Your task to perform on an android device: delete the emails in spam in the gmail app Image 0: 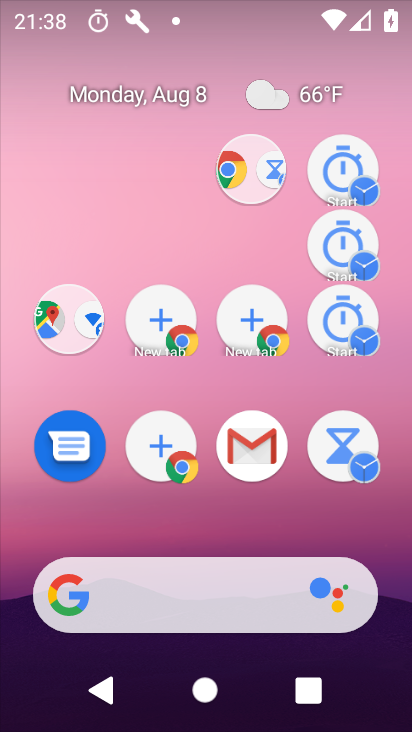
Step 0: drag from (258, 337) to (253, 277)
Your task to perform on an android device: delete the emails in spam in the gmail app Image 1: 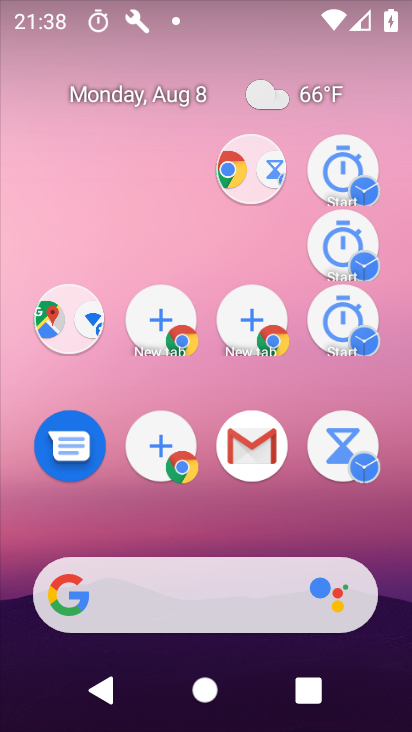
Step 1: drag from (249, 510) to (229, 306)
Your task to perform on an android device: delete the emails in spam in the gmail app Image 2: 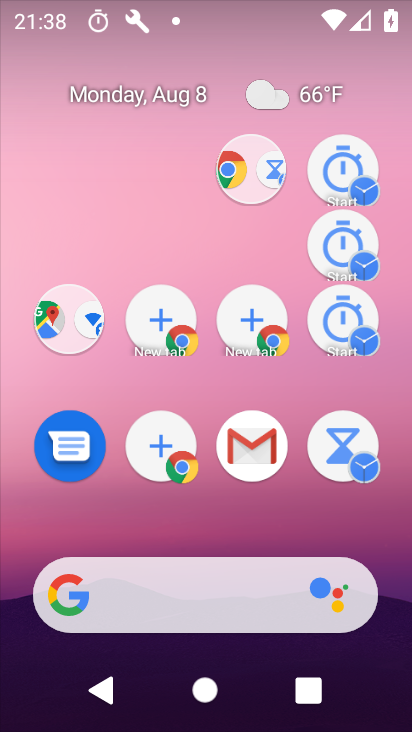
Step 2: drag from (262, 564) to (192, 96)
Your task to perform on an android device: delete the emails in spam in the gmail app Image 3: 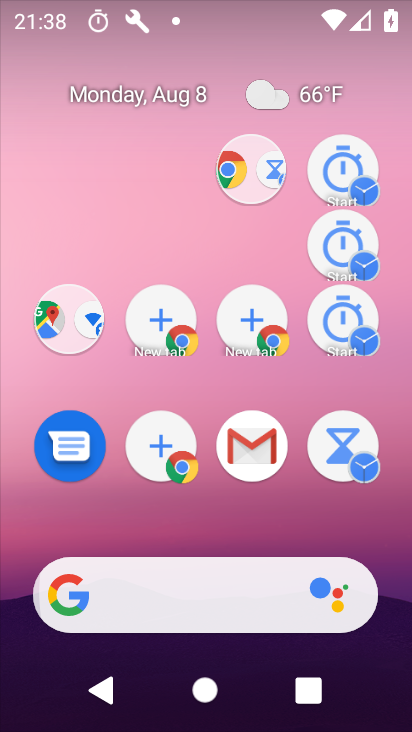
Step 3: drag from (257, 473) to (218, 116)
Your task to perform on an android device: delete the emails in spam in the gmail app Image 4: 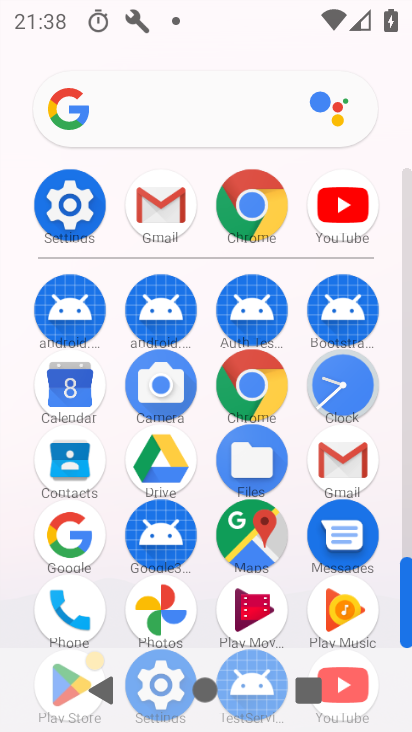
Step 4: drag from (260, 500) to (228, 129)
Your task to perform on an android device: delete the emails in spam in the gmail app Image 5: 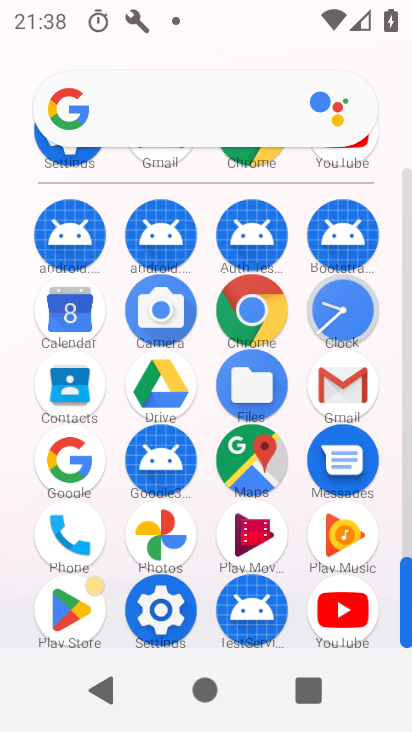
Step 5: click (333, 373)
Your task to perform on an android device: delete the emails in spam in the gmail app Image 6: 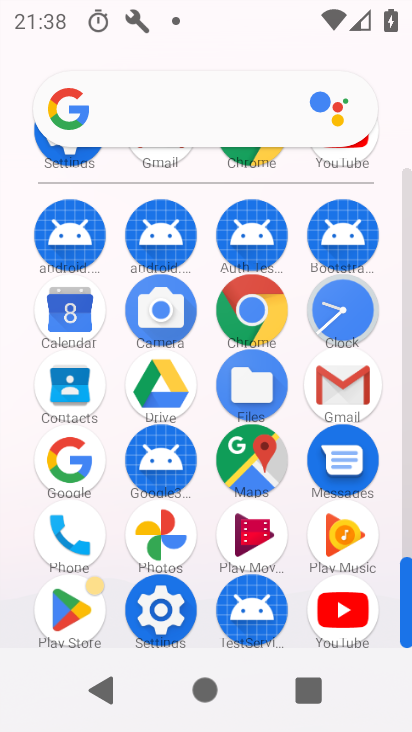
Step 6: click (336, 376)
Your task to perform on an android device: delete the emails in spam in the gmail app Image 7: 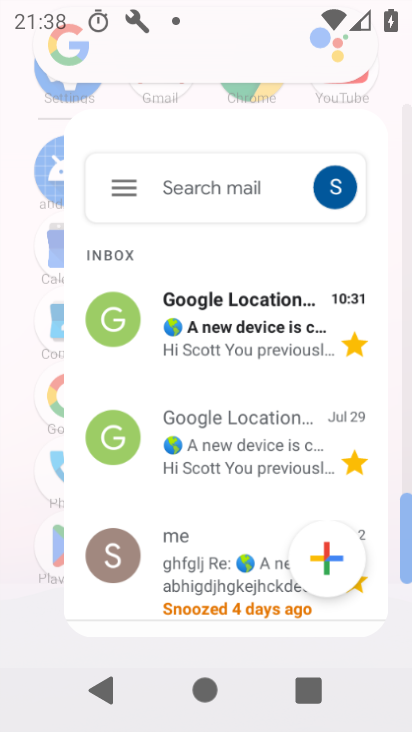
Step 7: click (336, 376)
Your task to perform on an android device: delete the emails in spam in the gmail app Image 8: 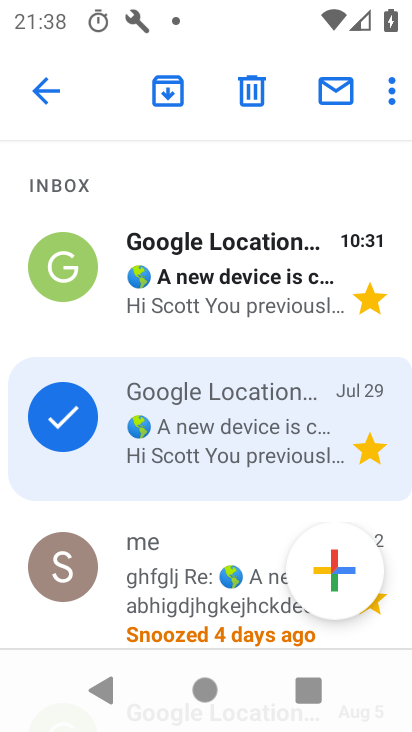
Step 8: click (31, 104)
Your task to perform on an android device: delete the emails in spam in the gmail app Image 9: 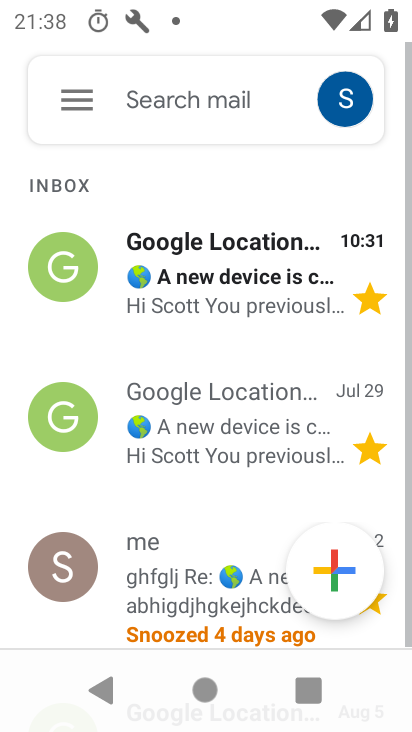
Step 9: drag from (70, 102) to (137, 576)
Your task to perform on an android device: delete the emails in spam in the gmail app Image 10: 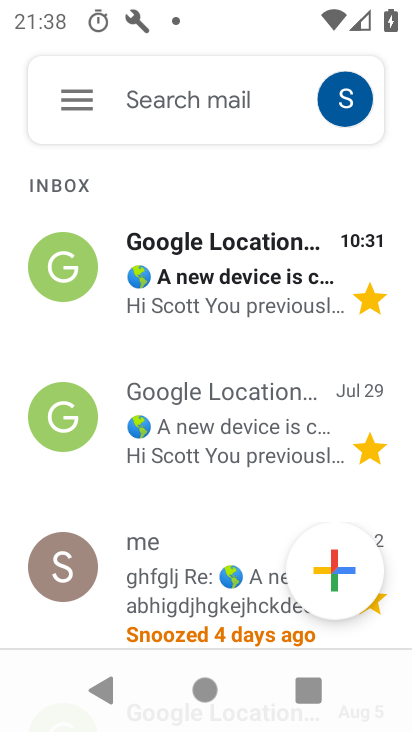
Step 10: drag from (67, 85) to (120, 448)
Your task to perform on an android device: delete the emails in spam in the gmail app Image 11: 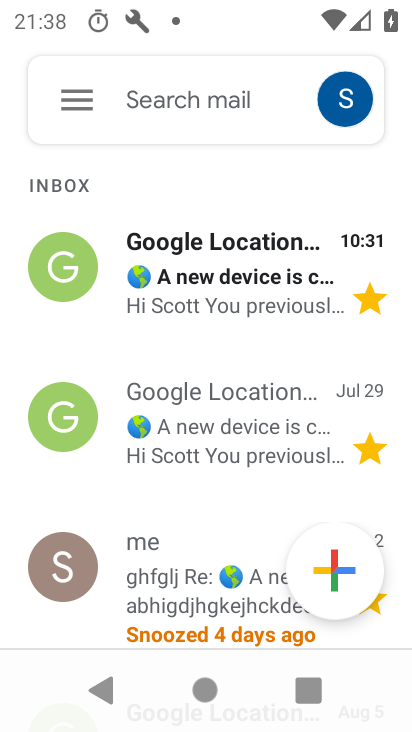
Step 11: drag from (71, 104) to (89, 243)
Your task to perform on an android device: delete the emails in spam in the gmail app Image 12: 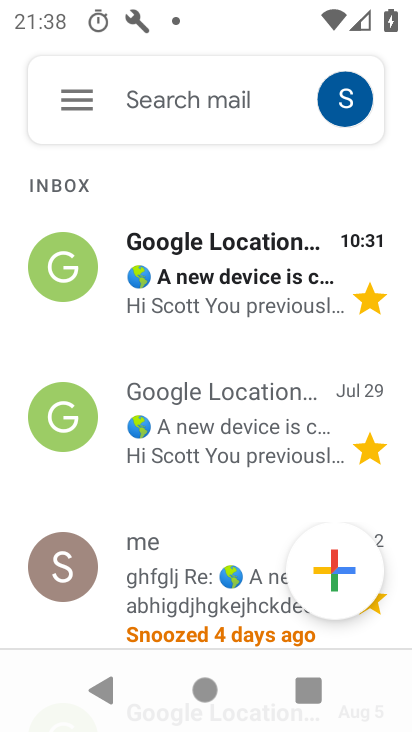
Step 12: click (68, 100)
Your task to perform on an android device: delete the emails in spam in the gmail app Image 13: 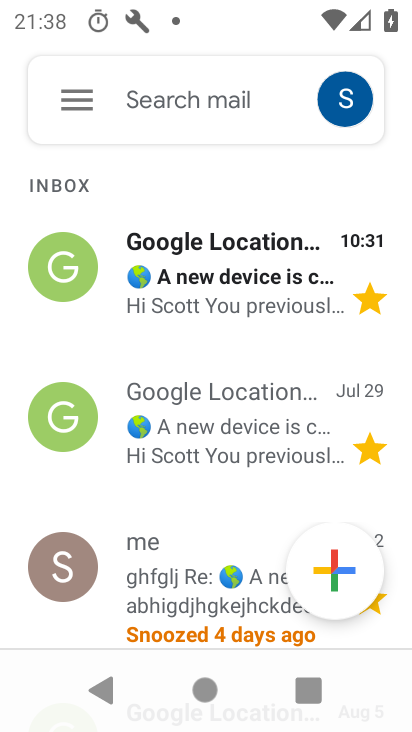
Step 13: click (70, 101)
Your task to perform on an android device: delete the emails in spam in the gmail app Image 14: 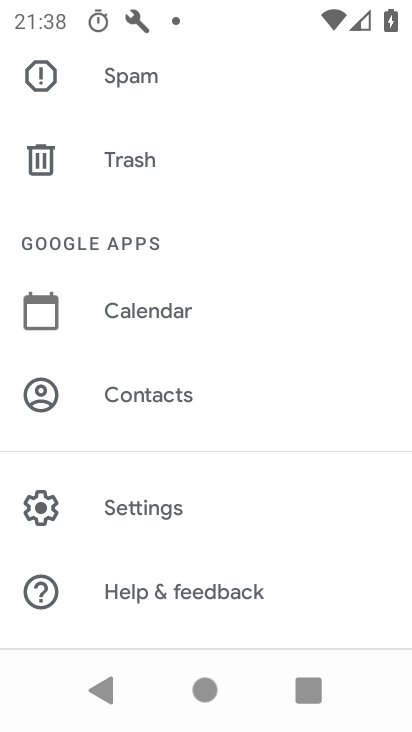
Step 14: drag from (70, 101) to (168, 69)
Your task to perform on an android device: delete the emails in spam in the gmail app Image 15: 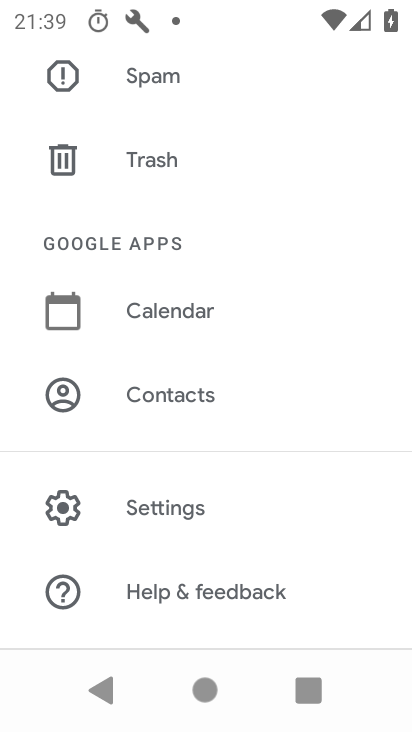
Step 15: click (168, 69)
Your task to perform on an android device: delete the emails in spam in the gmail app Image 16: 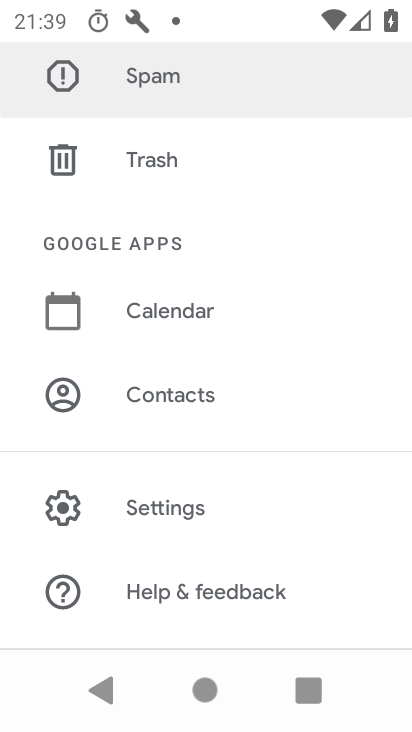
Step 16: click (170, 72)
Your task to perform on an android device: delete the emails in spam in the gmail app Image 17: 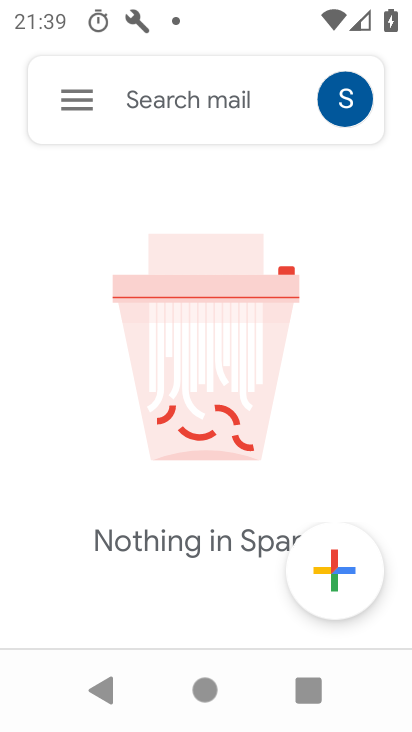
Step 17: click (71, 78)
Your task to perform on an android device: delete the emails in spam in the gmail app Image 18: 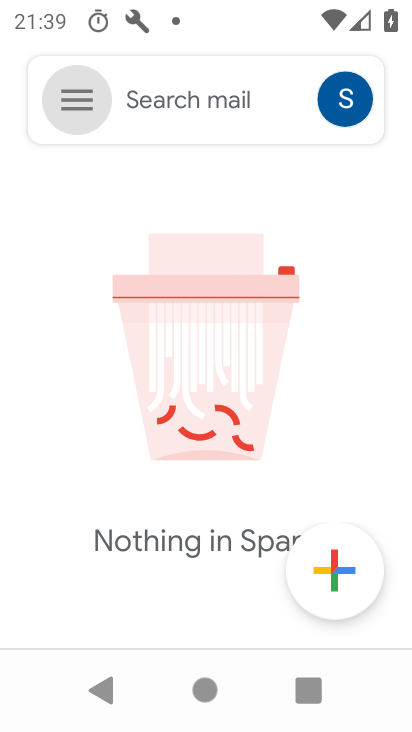
Step 18: click (71, 78)
Your task to perform on an android device: delete the emails in spam in the gmail app Image 19: 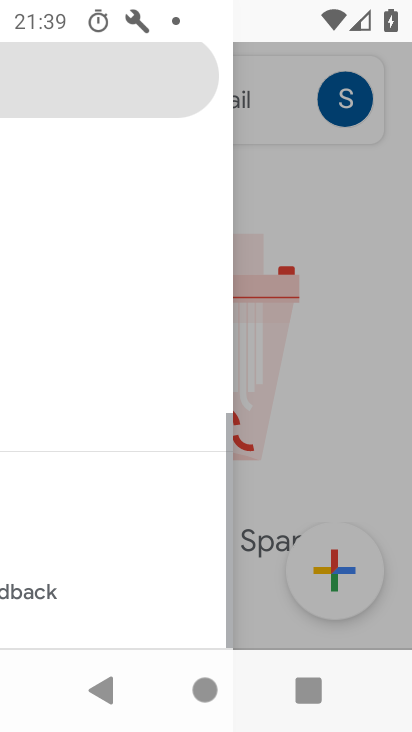
Step 19: click (71, 78)
Your task to perform on an android device: delete the emails in spam in the gmail app Image 20: 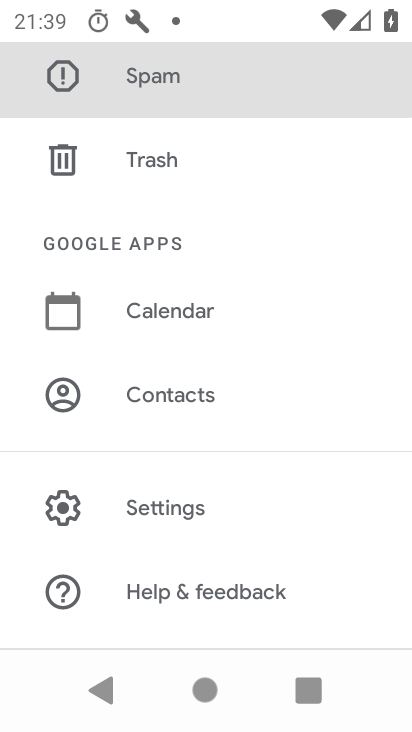
Step 20: click (151, 88)
Your task to perform on an android device: delete the emails in spam in the gmail app Image 21: 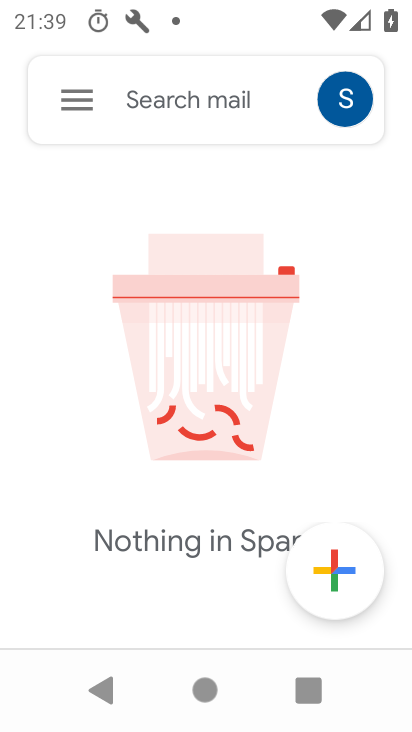
Step 21: task complete